Your task to perform on an android device: change keyboard looks Image 0: 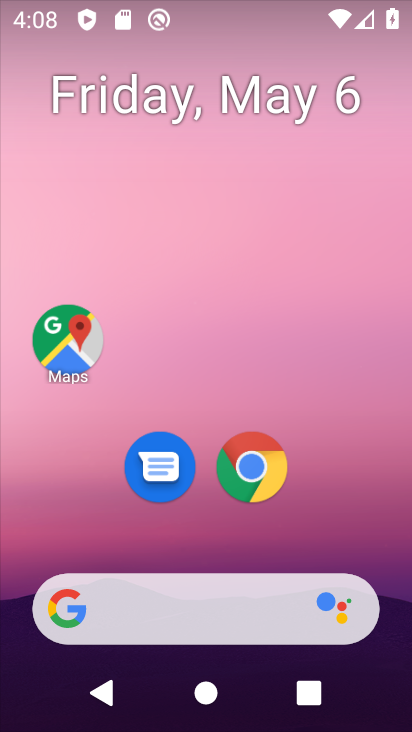
Step 0: drag from (325, 548) to (244, 169)
Your task to perform on an android device: change keyboard looks Image 1: 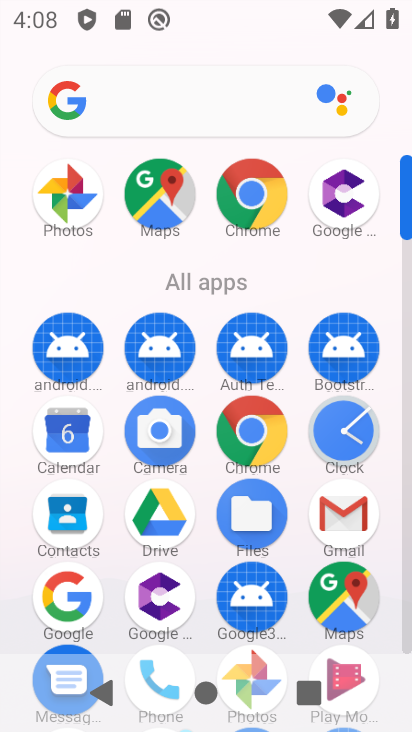
Step 1: drag from (290, 587) to (332, 210)
Your task to perform on an android device: change keyboard looks Image 2: 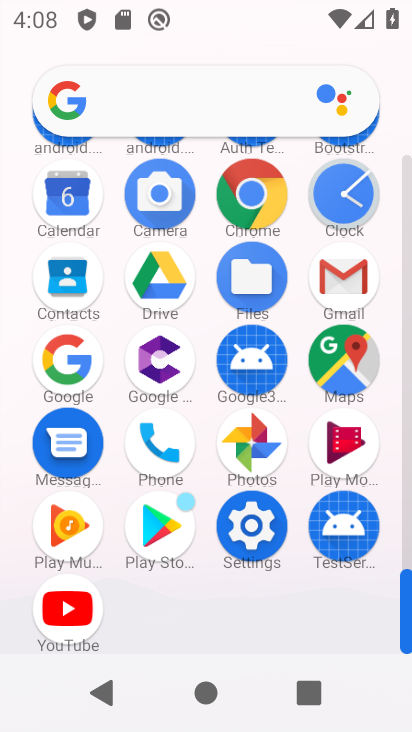
Step 2: click (254, 524)
Your task to perform on an android device: change keyboard looks Image 3: 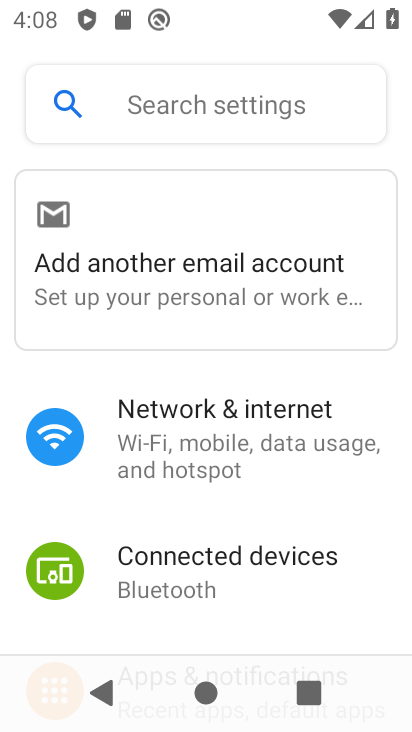
Step 3: drag from (229, 521) to (238, 186)
Your task to perform on an android device: change keyboard looks Image 4: 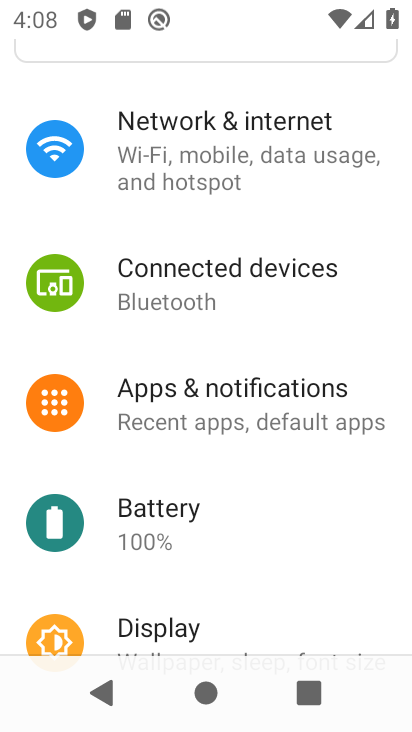
Step 4: drag from (208, 500) to (234, 141)
Your task to perform on an android device: change keyboard looks Image 5: 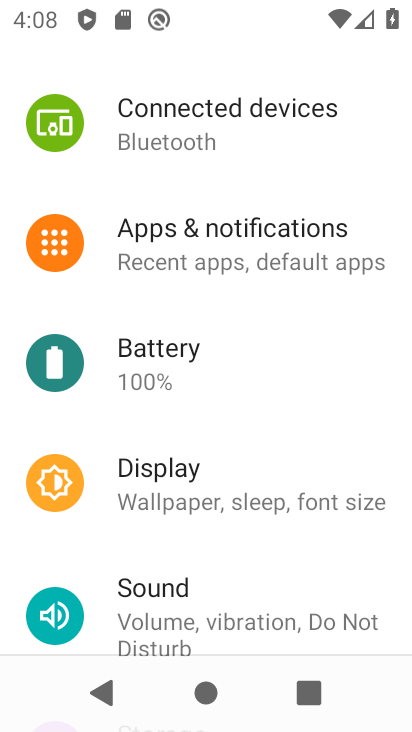
Step 5: drag from (226, 582) to (246, 198)
Your task to perform on an android device: change keyboard looks Image 6: 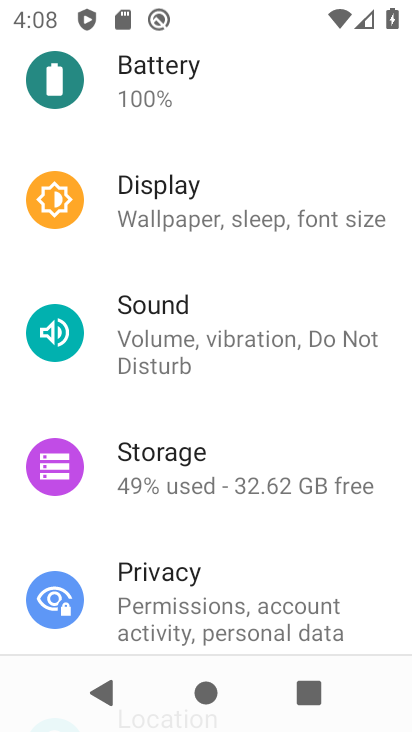
Step 6: drag from (251, 481) to (265, 234)
Your task to perform on an android device: change keyboard looks Image 7: 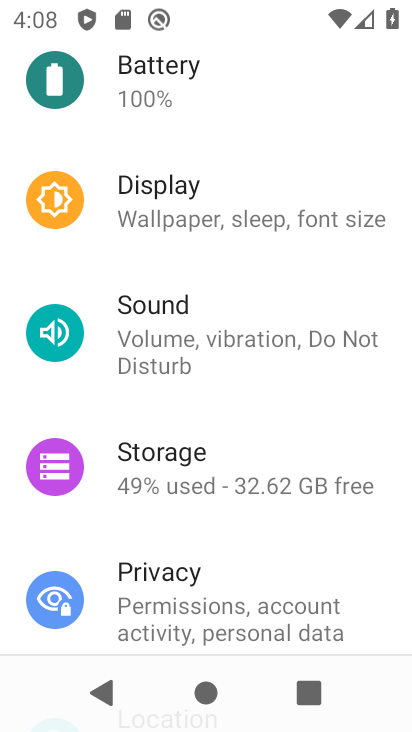
Step 7: drag from (214, 530) to (169, 186)
Your task to perform on an android device: change keyboard looks Image 8: 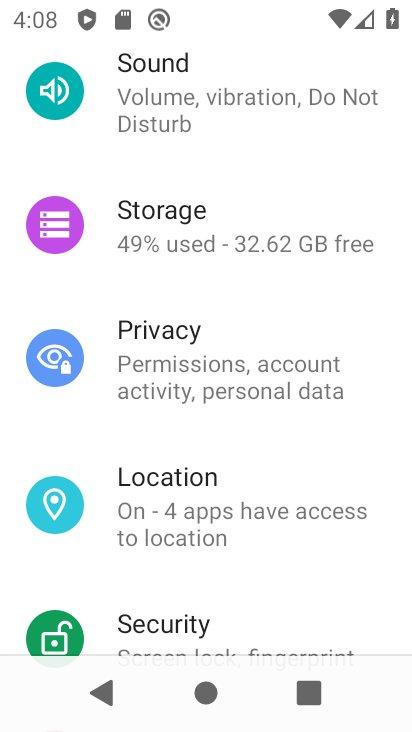
Step 8: drag from (217, 564) to (212, 167)
Your task to perform on an android device: change keyboard looks Image 9: 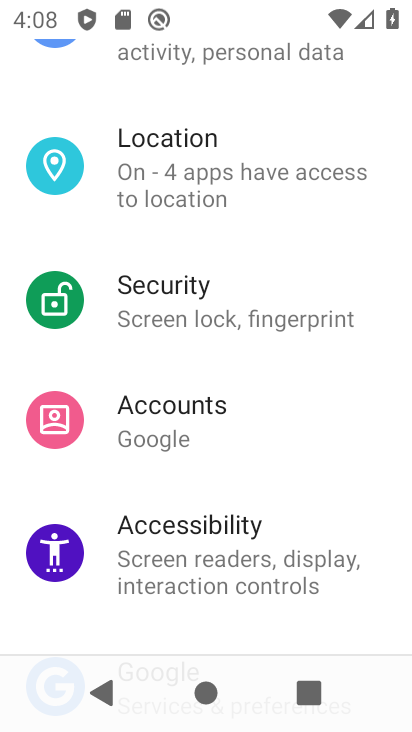
Step 9: drag from (255, 470) to (246, 188)
Your task to perform on an android device: change keyboard looks Image 10: 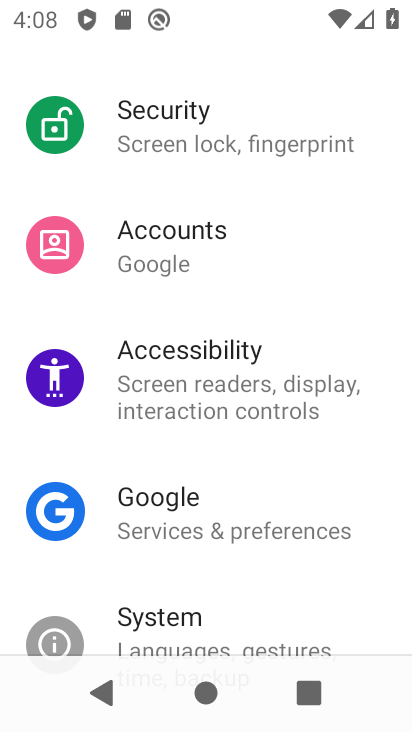
Step 10: click (167, 624)
Your task to perform on an android device: change keyboard looks Image 11: 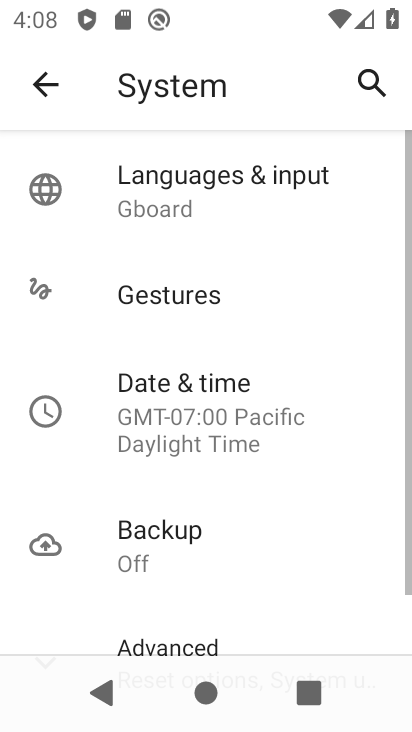
Step 11: click (223, 191)
Your task to perform on an android device: change keyboard looks Image 12: 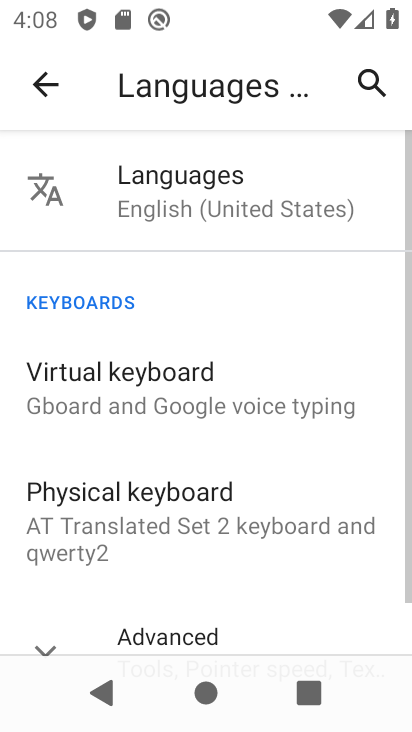
Step 12: click (136, 411)
Your task to perform on an android device: change keyboard looks Image 13: 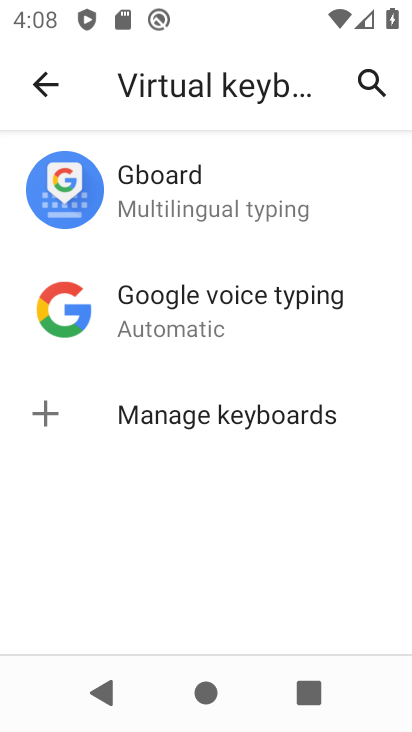
Step 13: click (212, 213)
Your task to perform on an android device: change keyboard looks Image 14: 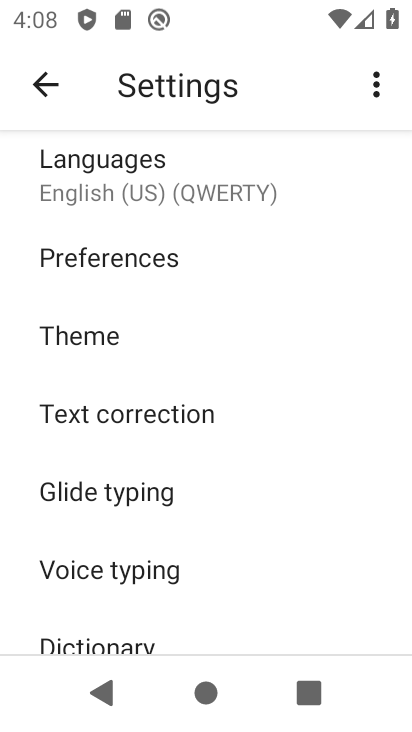
Step 14: click (25, 358)
Your task to perform on an android device: change keyboard looks Image 15: 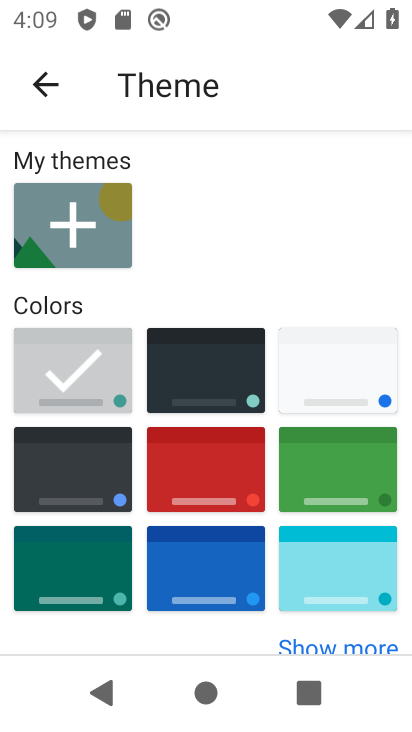
Step 15: click (245, 384)
Your task to perform on an android device: change keyboard looks Image 16: 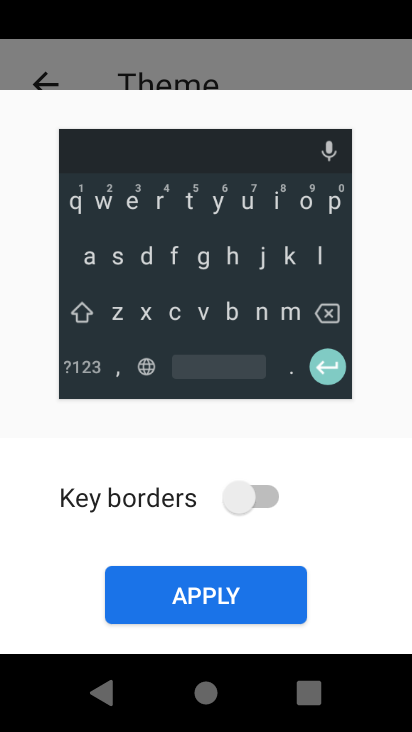
Step 16: click (173, 585)
Your task to perform on an android device: change keyboard looks Image 17: 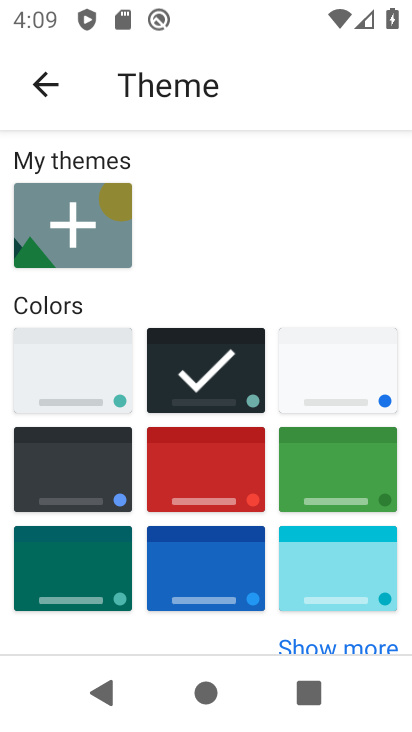
Step 17: task complete